Your task to perform on an android device: turn on data saver in the chrome app Image 0: 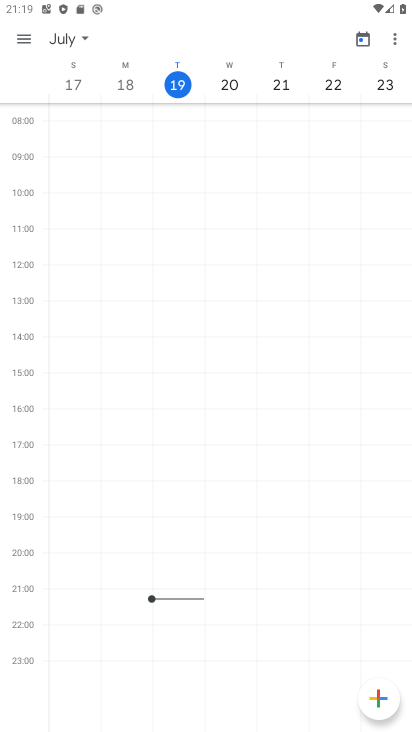
Step 0: press home button
Your task to perform on an android device: turn on data saver in the chrome app Image 1: 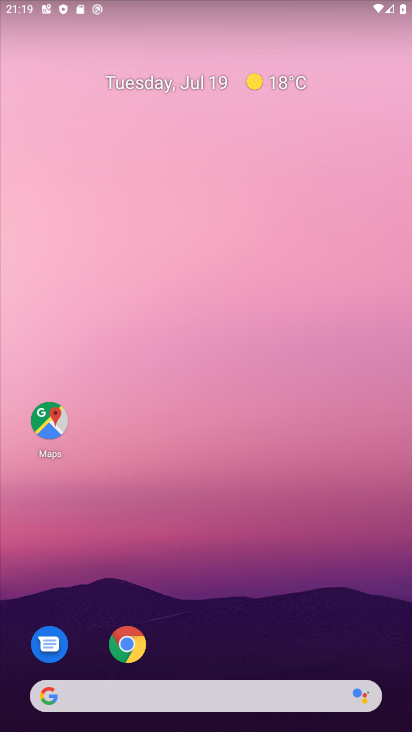
Step 1: click (128, 647)
Your task to perform on an android device: turn on data saver in the chrome app Image 2: 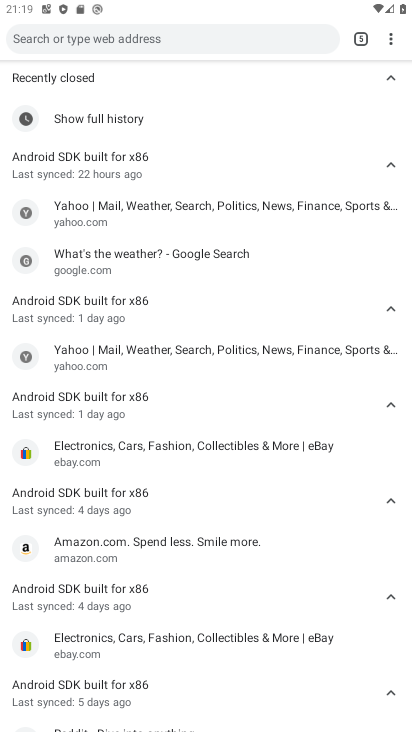
Step 2: click (391, 44)
Your task to perform on an android device: turn on data saver in the chrome app Image 3: 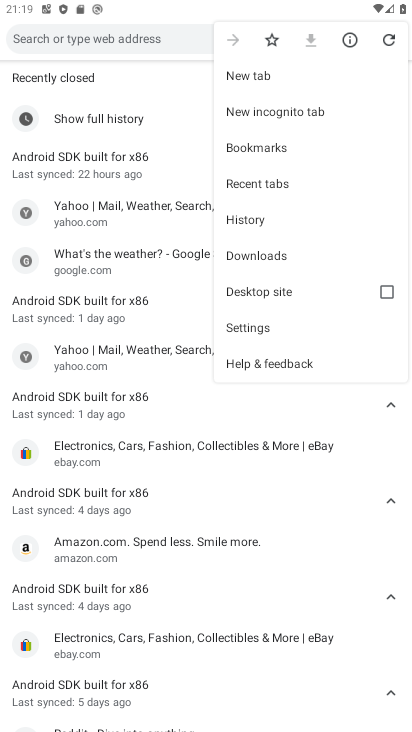
Step 3: click (249, 324)
Your task to perform on an android device: turn on data saver in the chrome app Image 4: 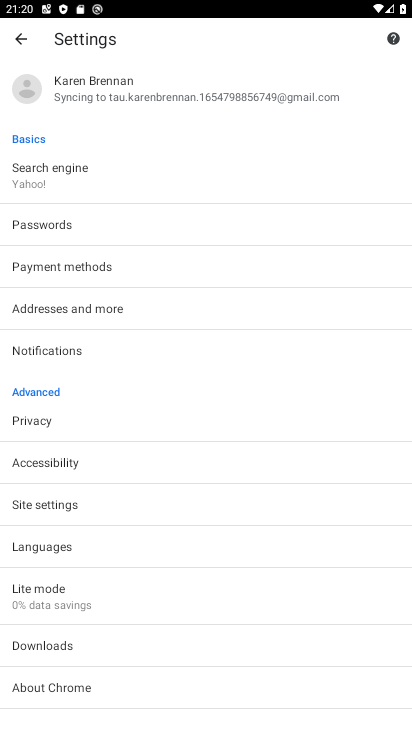
Step 4: click (36, 591)
Your task to perform on an android device: turn on data saver in the chrome app Image 5: 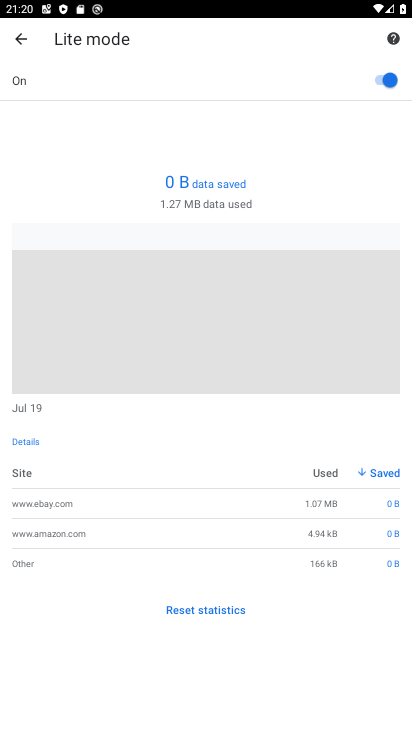
Step 5: task complete